Your task to perform on an android device: Check the news Image 0: 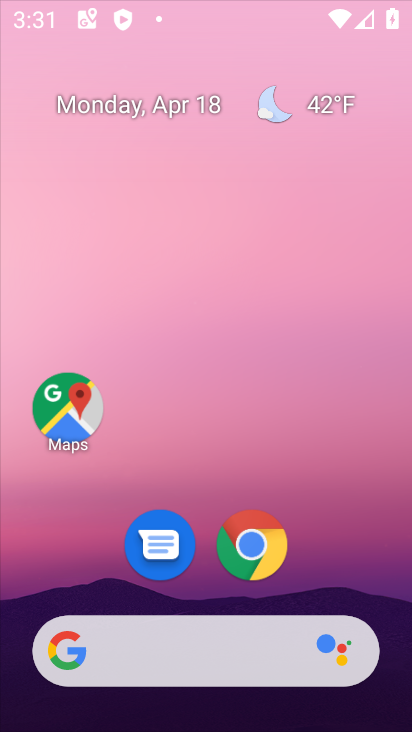
Step 0: drag from (325, 428) to (302, 69)
Your task to perform on an android device: Check the news Image 1: 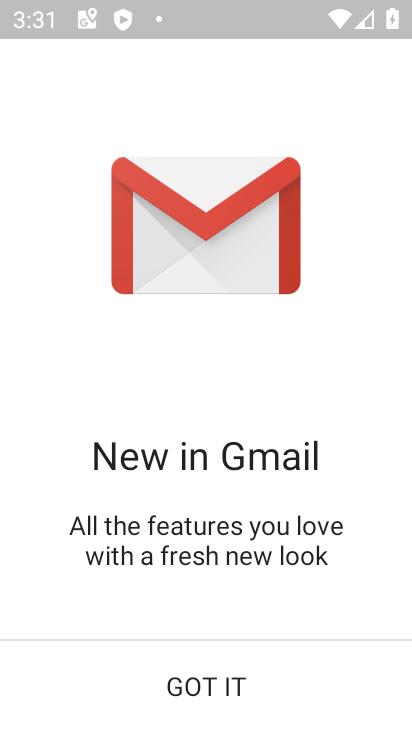
Step 1: task complete